Your task to perform on an android device: Open calendar and show me the second week of next month Image 0: 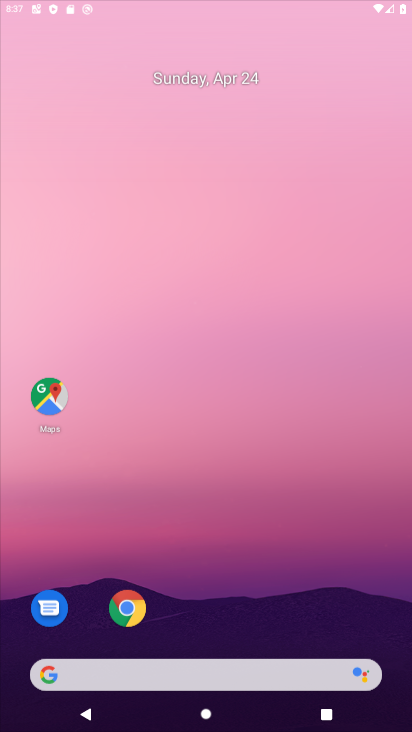
Step 0: press home button
Your task to perform on an android device: Open calendar and show me the second week of next month Image 1: 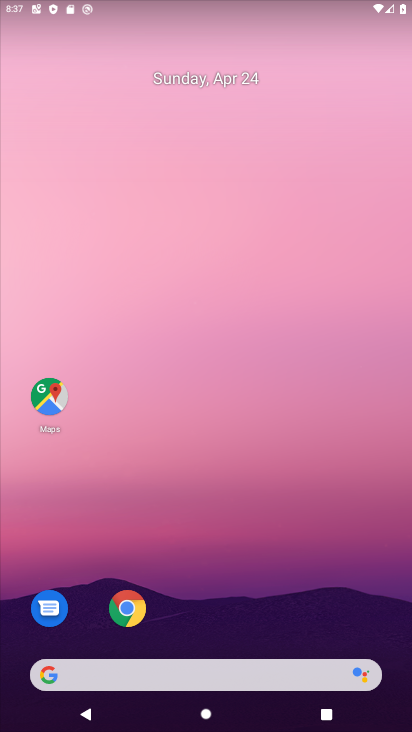
Step 1: drag from (262, 694) to (232, 273)
Your task to perform on an android device: Open calendar and show me the second week of next month Image 2: 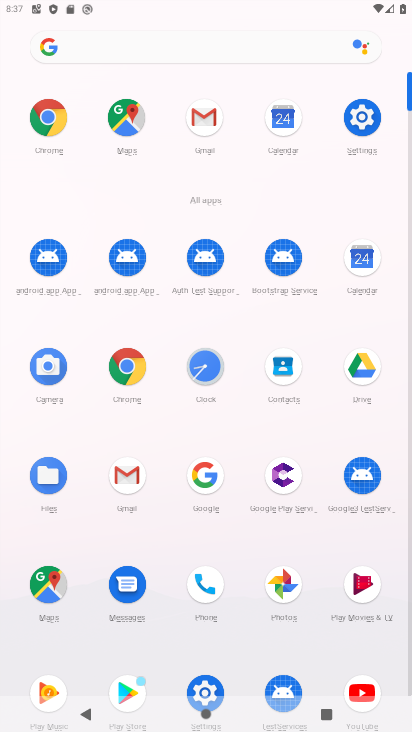
Step 2: click (360, 266)
Your task to perform on an android device: Open calendar and show me the second week of next month Image 3: 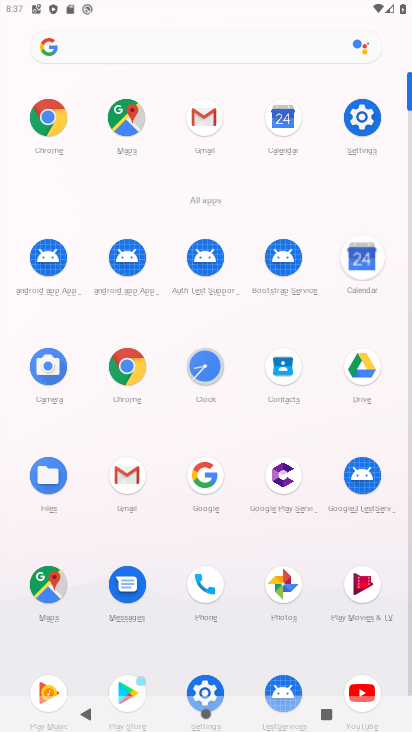
Step 3: click (358, 268)
Your task to perform on an android device: Open calendar and show me the second week of next month Image 4: 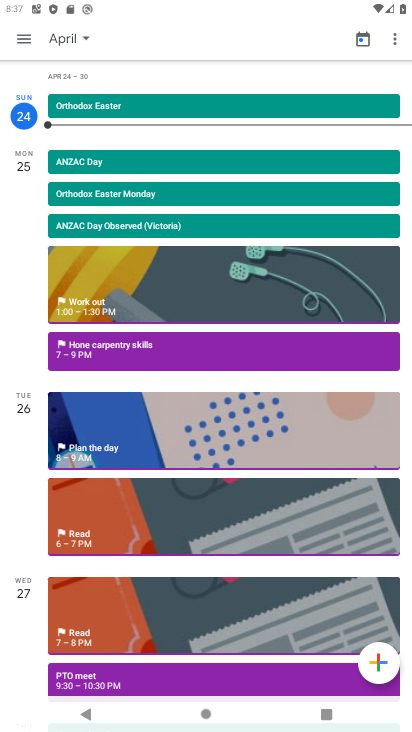
Step 4: click (33, 51)
Your task to perform on an android device: Open calendar and show me the second week of next month Image 5: 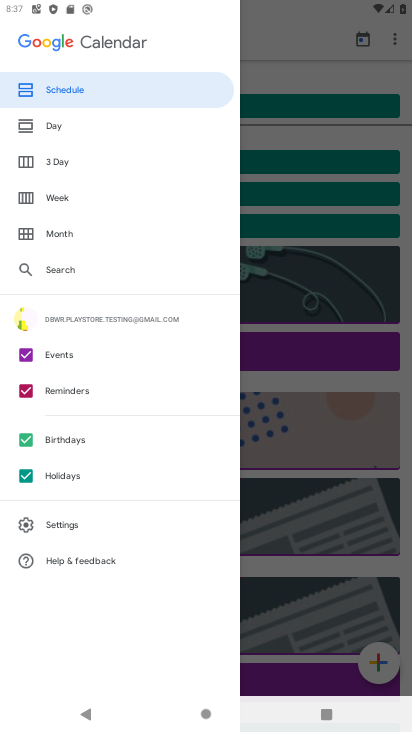
Step 5: click (80, 237)
Your task to perform on an android device: Open calendar and show me the second week of next month Image 6: 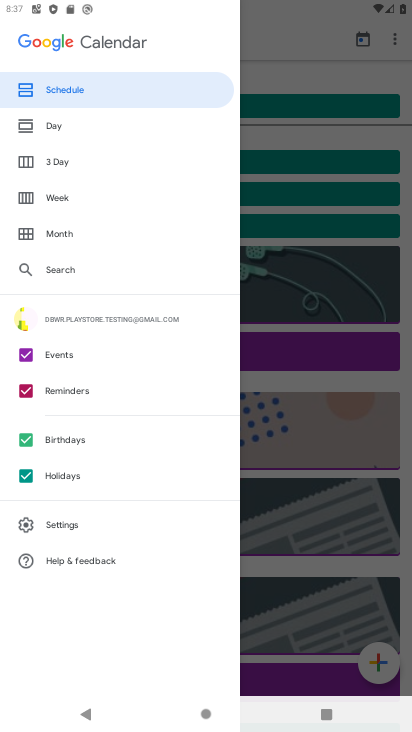
Step 6: click (67, 238)
Your task to perform on an android device: Open calendar and show me the second week of next month Image 7: 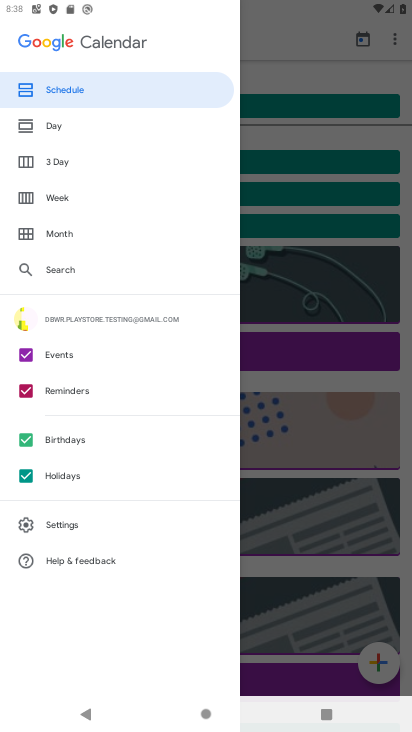
Step 7: click (76, 232)
Your task to perform on an android device: Open calendar and show me the second week of next month Image 8: 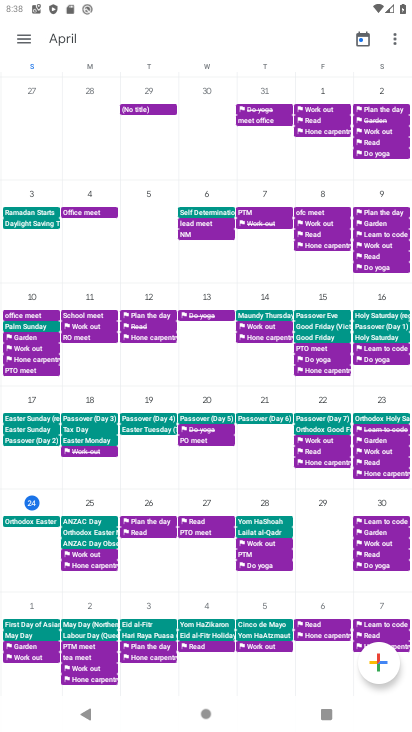
Step 8: drag from (357, 326) to (59, 434)
Your task to perform on an android device: Open calendar and show me the second week of next month Image 9: 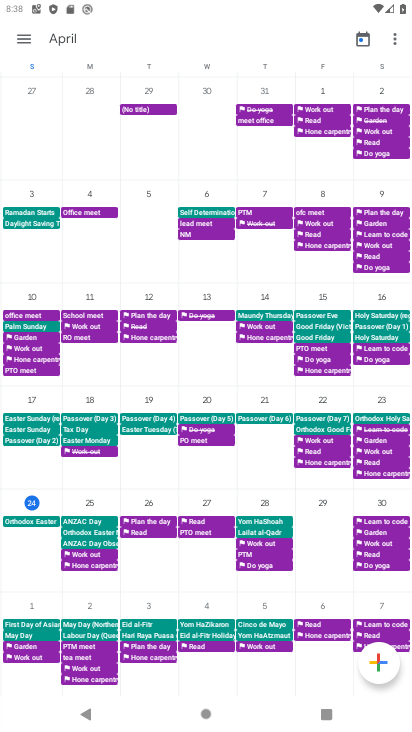
Step 9: drag from (386, 306) to (8, 321)
Your task to perform on an android device: Open calendar and show me the second week of next month Image 10: 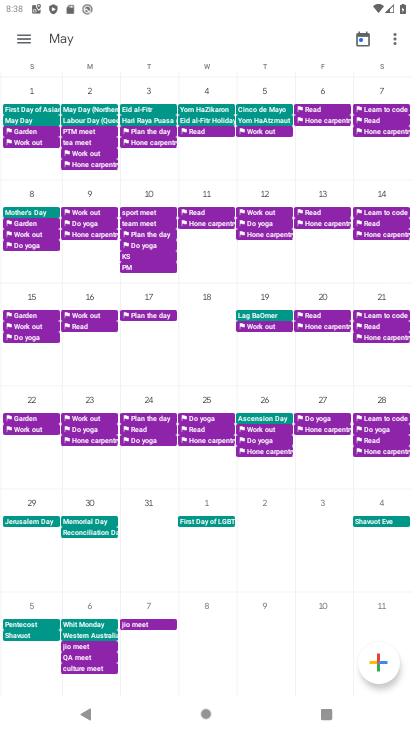
Step 10: click (84, 215)
Your task to perform on an android device: Open calendar and show me the second week of next month Image 11: 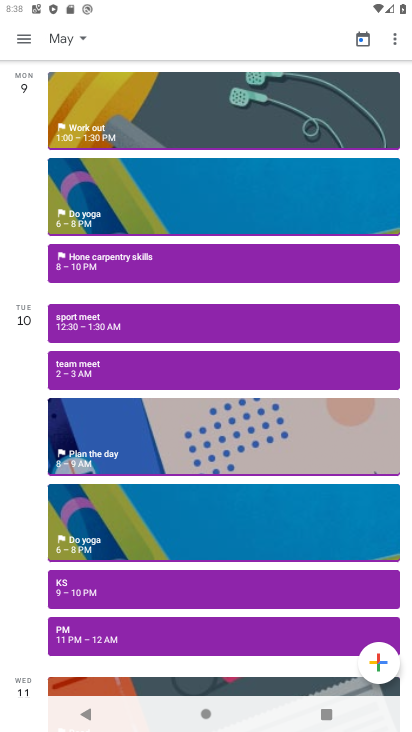
Step 11: task complete